Your task to perform on an android device: change notifications settings Image 0: 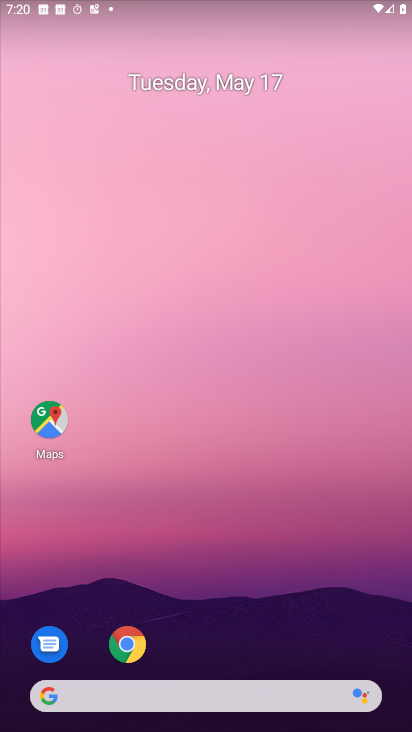
Step 0: drag from (321, 615) to (238, 32)
Your task to perform on an android device: change notifications settings Image 1: 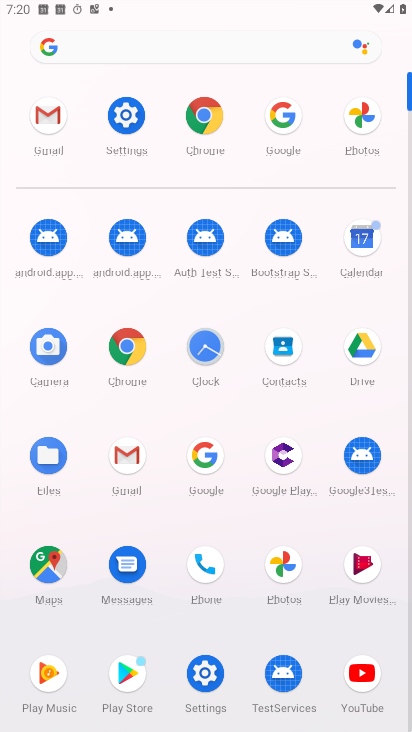
Step 1: click (128, 114)
Your task to perform on an android device: change notifications settings Image 2: 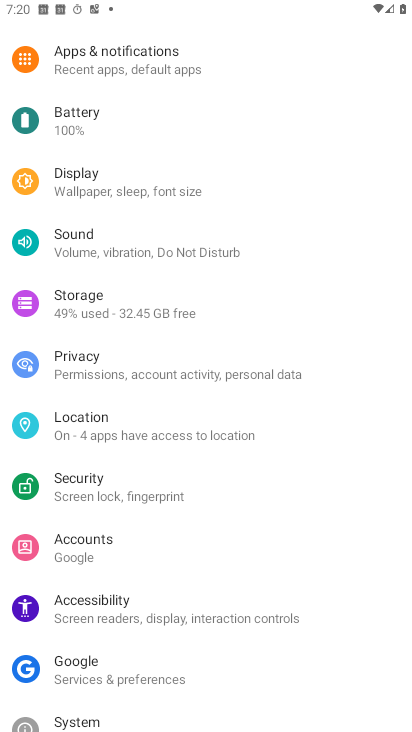
Step 2: click (140, 47)
Your task to perform on an android device: change notifications settings Image 3: 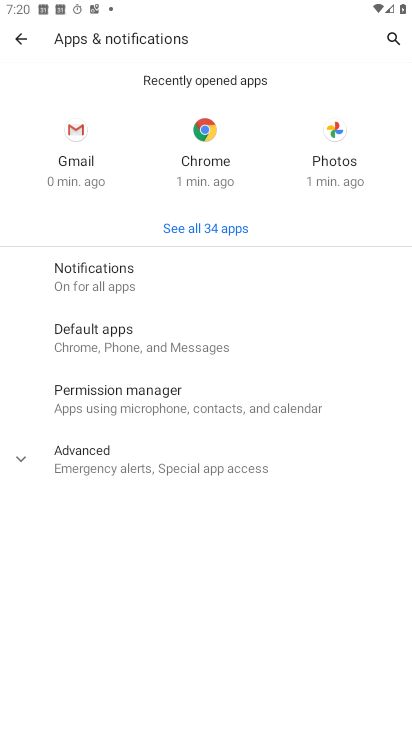
Step 3: click (172, 290)
Your task to perform on an android device: change notifications settings Image 4: 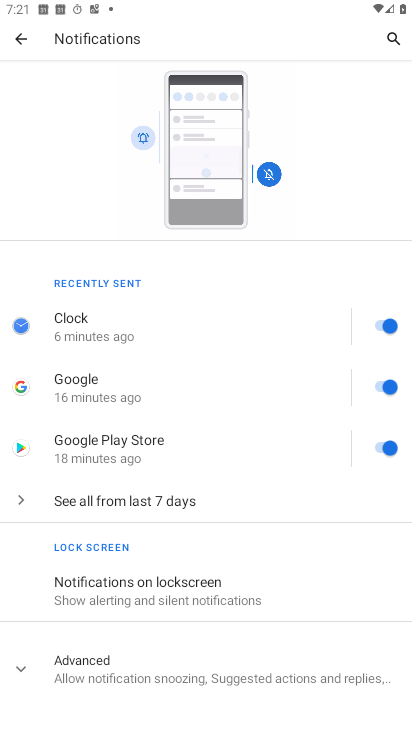
Step 4: task complete